Your task to perform on an android device: Search for panasonic triple a on costco, select the first entry, and add it to the cart. Image 0: 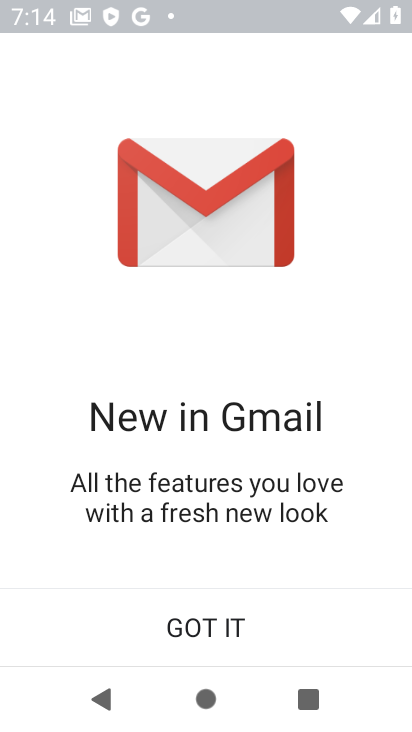
Step 0: press home button
Your task to perform on an android device: Search for panasonic triple a on costco, select the first entry, and add it to the cart. Image 1: 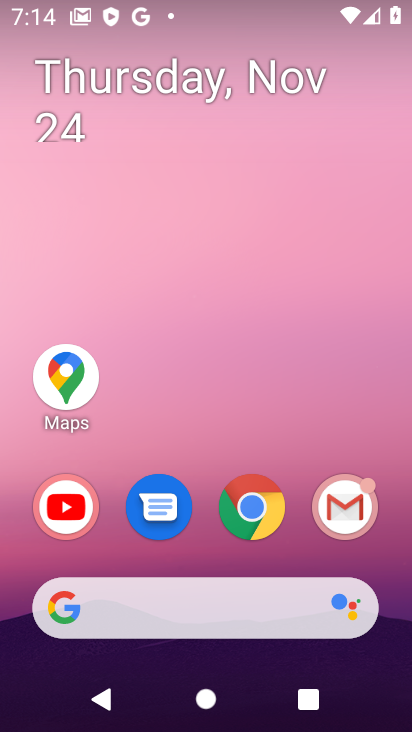
Step 1: click (247, 516)
Your task to perform on an android device: Search for panasonic triple a on costco, select the first entry, and add it to the cart. Image 2: 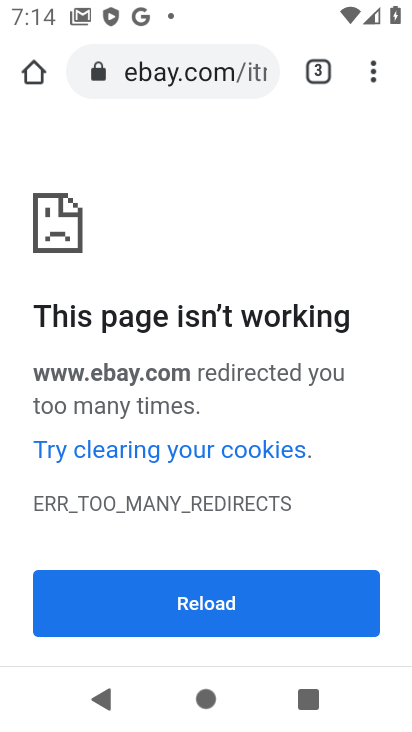
Step 2: click (171, 79)
Your task to perform on an android device: Search for panasonic triple a on costco, select the first entry, and add it to the cart. Image 3: 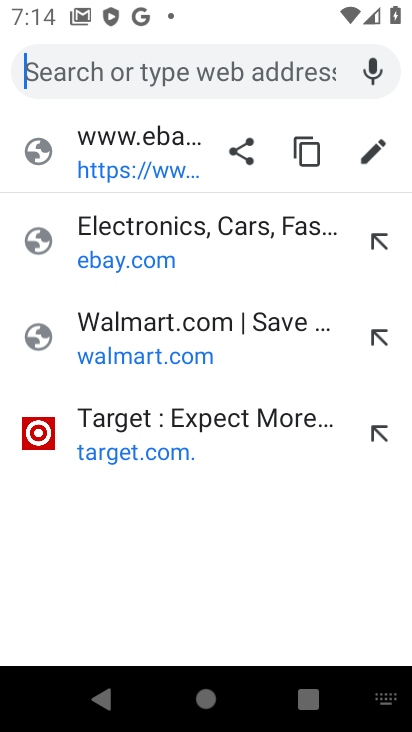
Step 3: type "costco"
Your task to perform on an android device: Search for panasonic triple a on costco, select the first entry, and add it to the cart. Image 4: 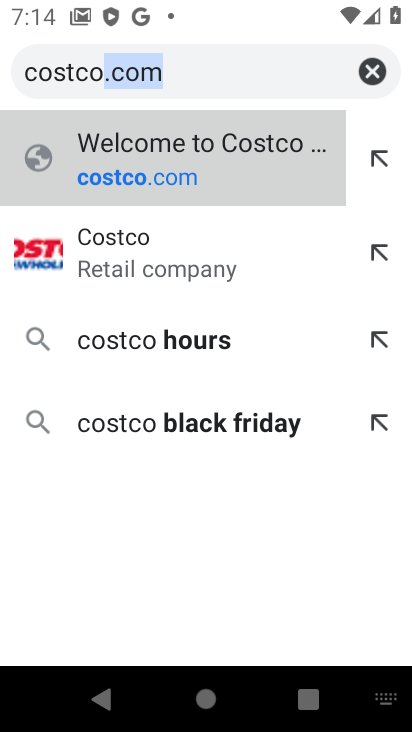
Step 4: click (268, 145)
Your task to perform on an android device: Search for panasonic triple a on costco, select the first entry, and add it to the cart. Image 5: 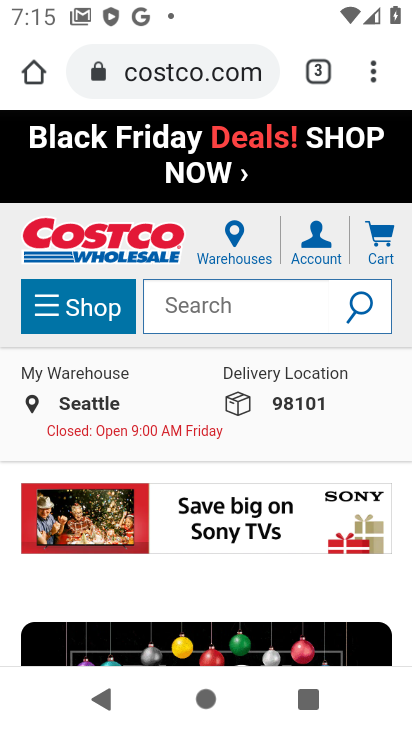
Step 5: click (232, 302)
Your task to perform on an android device: Search for panasonic triple a on costco, select the first entry, and add it to the cart. Image 6: 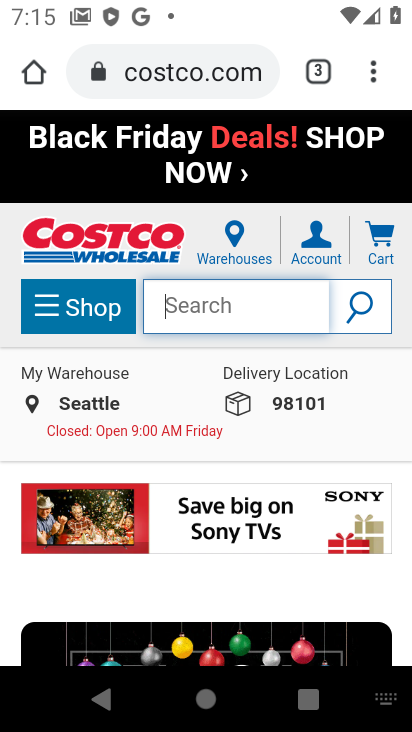
Step 6: type "panasonic aaa"
Your task to perform on an android device: Search for panasonic triple a on costco, select the first entry, and add it to the cart. Image 7: 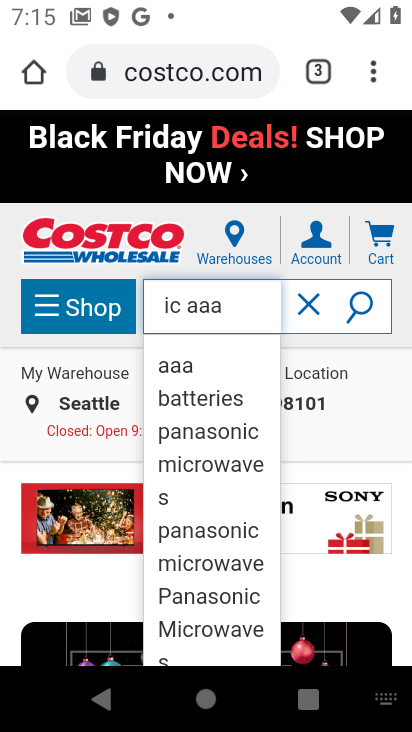
Step 7: press enter
Your task to perform on an android device: Search for panasonic triple a on costco, select the first entry, and add it to the cart. Image 8: 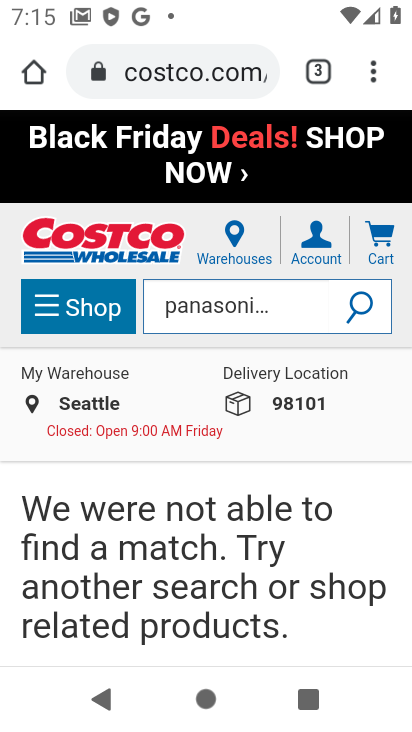
Step 8: drag from (351, 484) to (334, 33)
Your task to perform on an android device: Search for panasonic triple a on costco, select the first entry, and add it to the cart. Image 9: 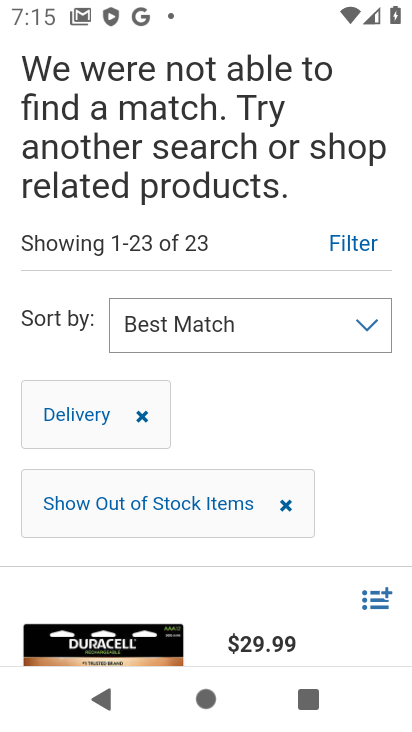
Step 9: drag from (228, 352) to (149, 59)
Your task to perform on an android device: Search for panasonic triple a on costco, select the first entry, and add it to the cart. Image 10: 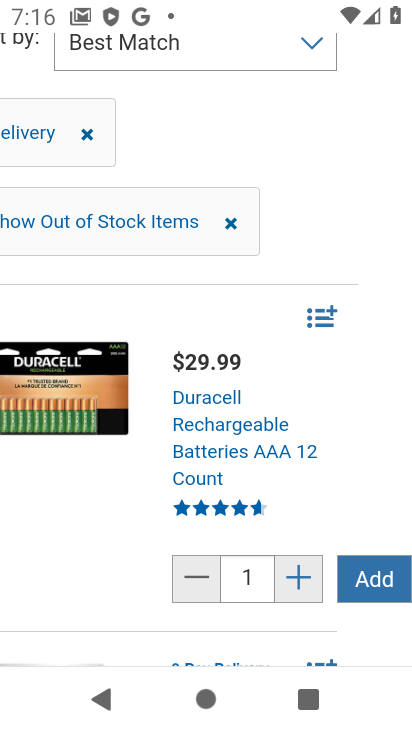
Step 10: click (346, 589)
Your task to perform on an android device: Search for panasonic triple a on costco, select the first entry, and add it to the cart. Image 11: 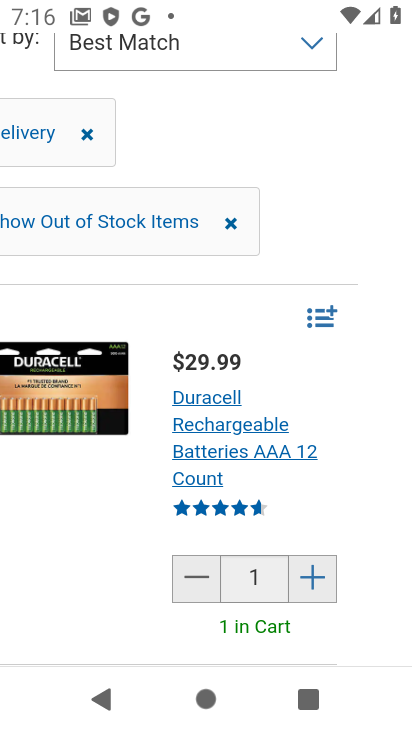
Step 11: task complete